Your task to perform on an android device: open chrome and create a bookmark for the current page Image 0: 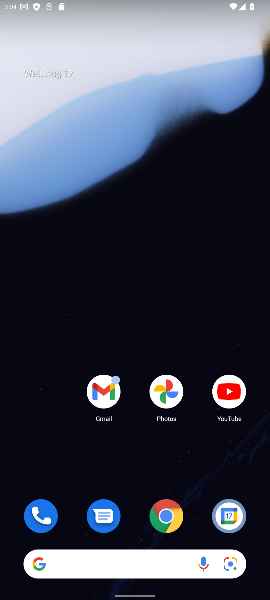
Step 0: click (167, 516)
Your task to perform on an android device: open chrome and create a bookmark for the current page Image 1: 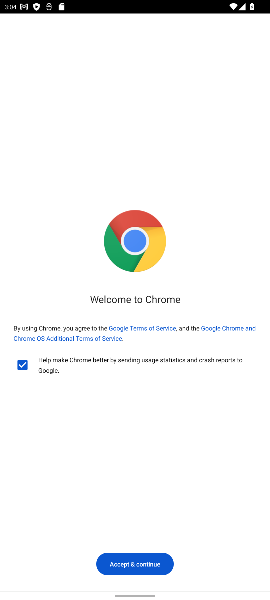
Step 1: click (133, 565)
Your task to perform on an android device: open chrome and create a bookmark for the current page Image 2: 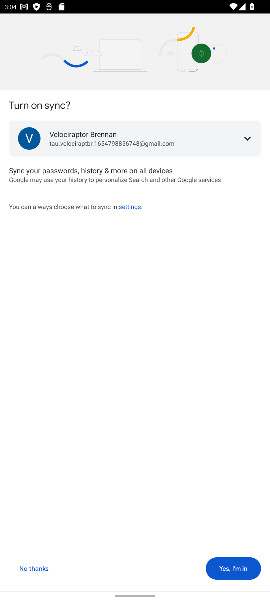
Step 2: click (227, 566)
Your task to perform on an android device: open chrome and create a bookmark for the current page Image 3: 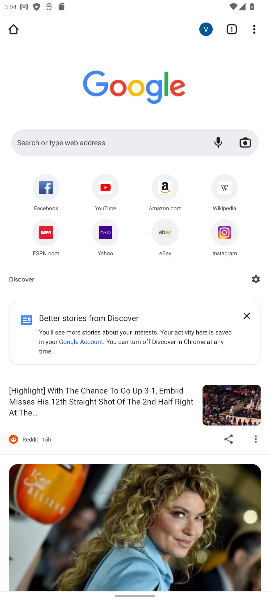
Step 3: click (258, 33)
Your task to perform on an android device: open chrome and create a bookmark for the current page Image 4: 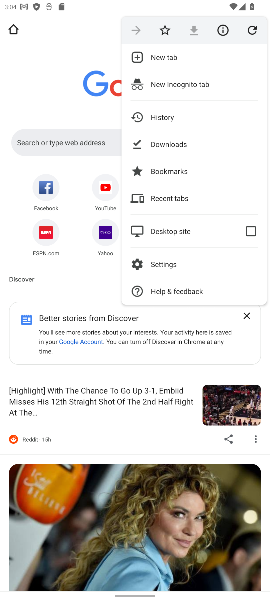
Step 4: click (166, 32)
Your task to perform on an android device: open chrome and create a bookmark for the current page Image 5: 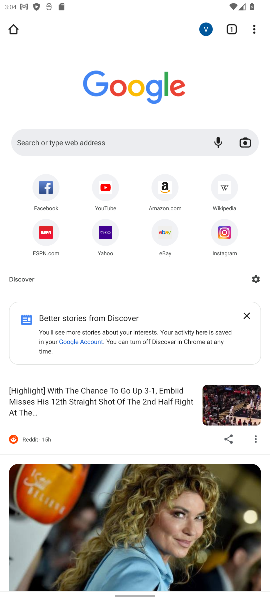
Step 5: task complete